Your task to perform on an android device: install app "PlayWell" Image 0: 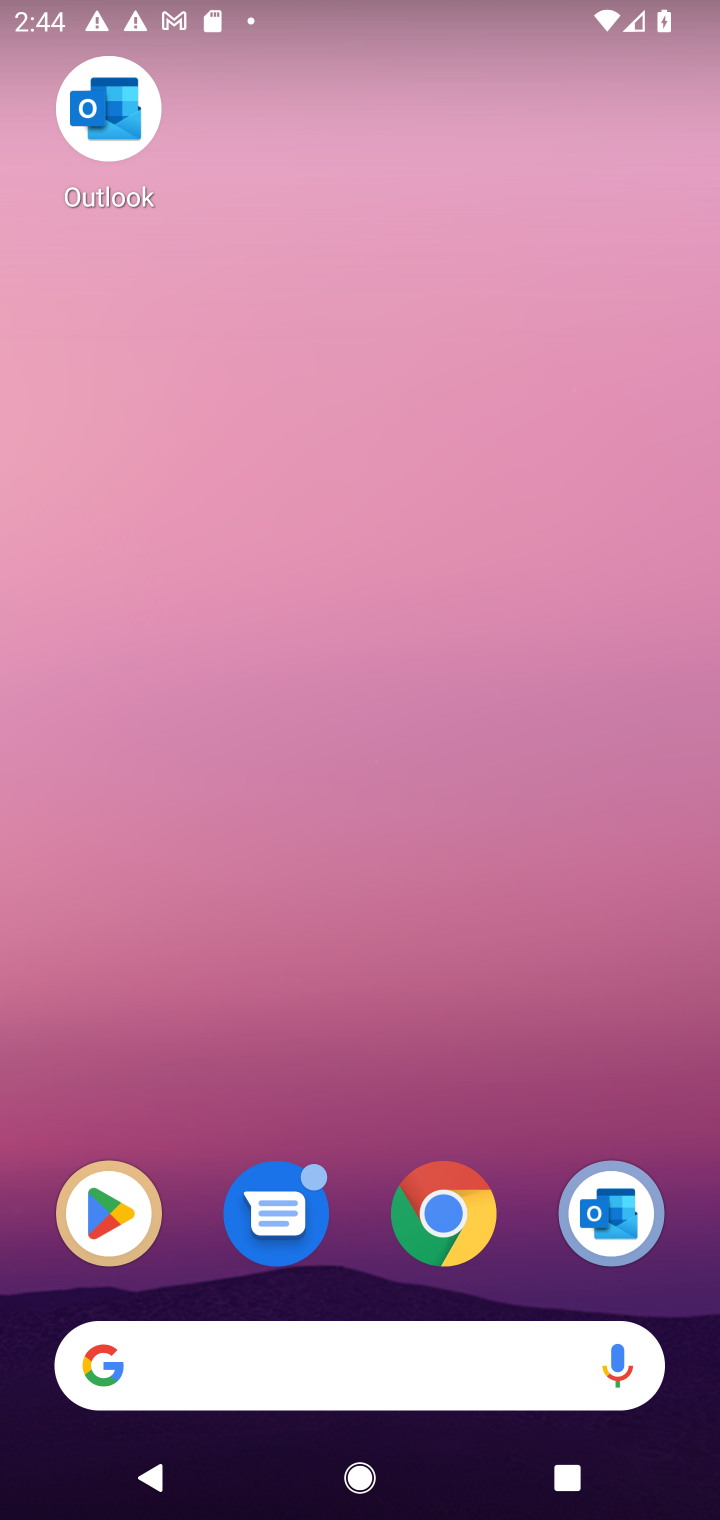
Step 0: drag from (574, 1103) to (567, 259)
Your task to perform on an android device: install app "PlayWell" Image 1: 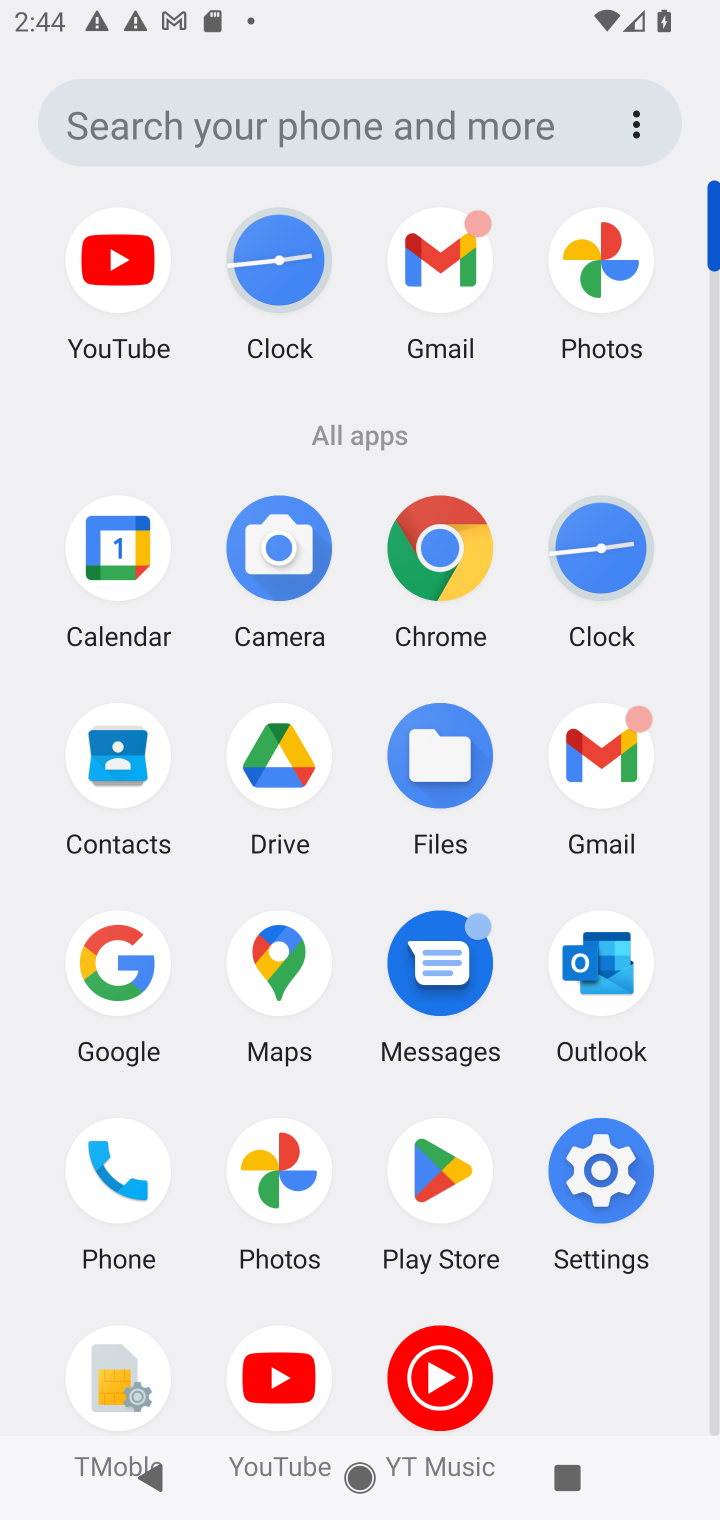
Step 1: click (446, 1178)
Your task to perform on an android device: install app "PlayWell" Image 2: 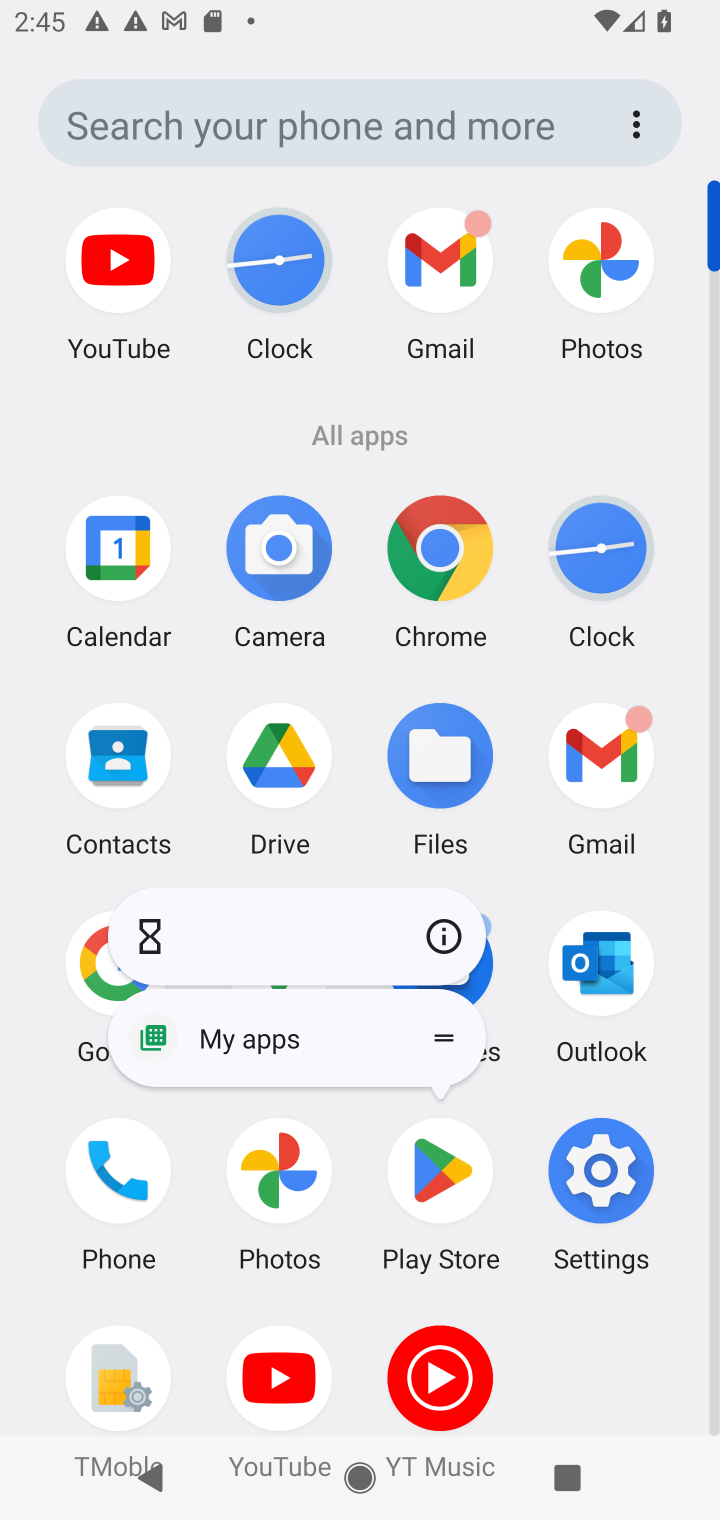
Step 2: click (442, 1163)
Your task to perform on an android device: install app "PlayWell" Image 3: 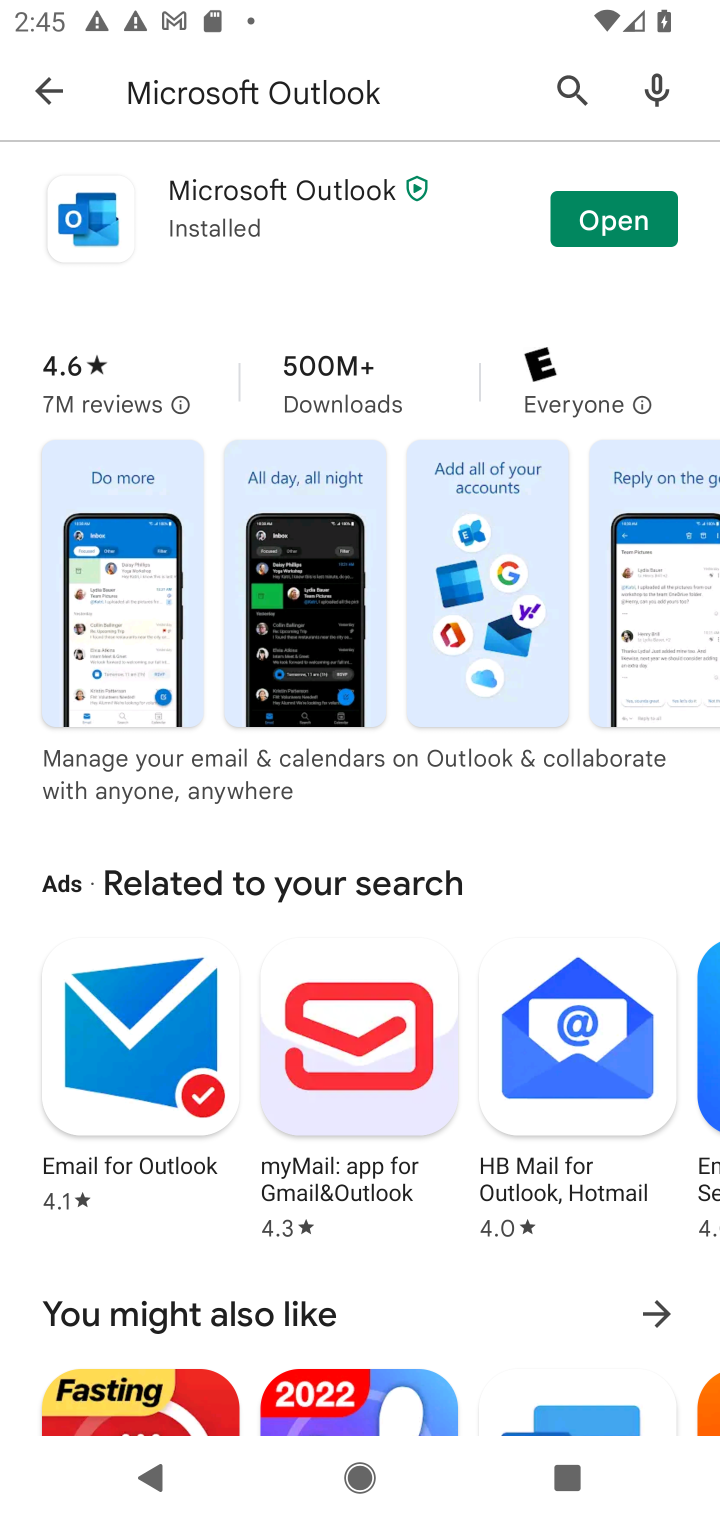
Step 3: click (401, 97)
Your task to perform on an android device: install app "PlayWell" Image 4: 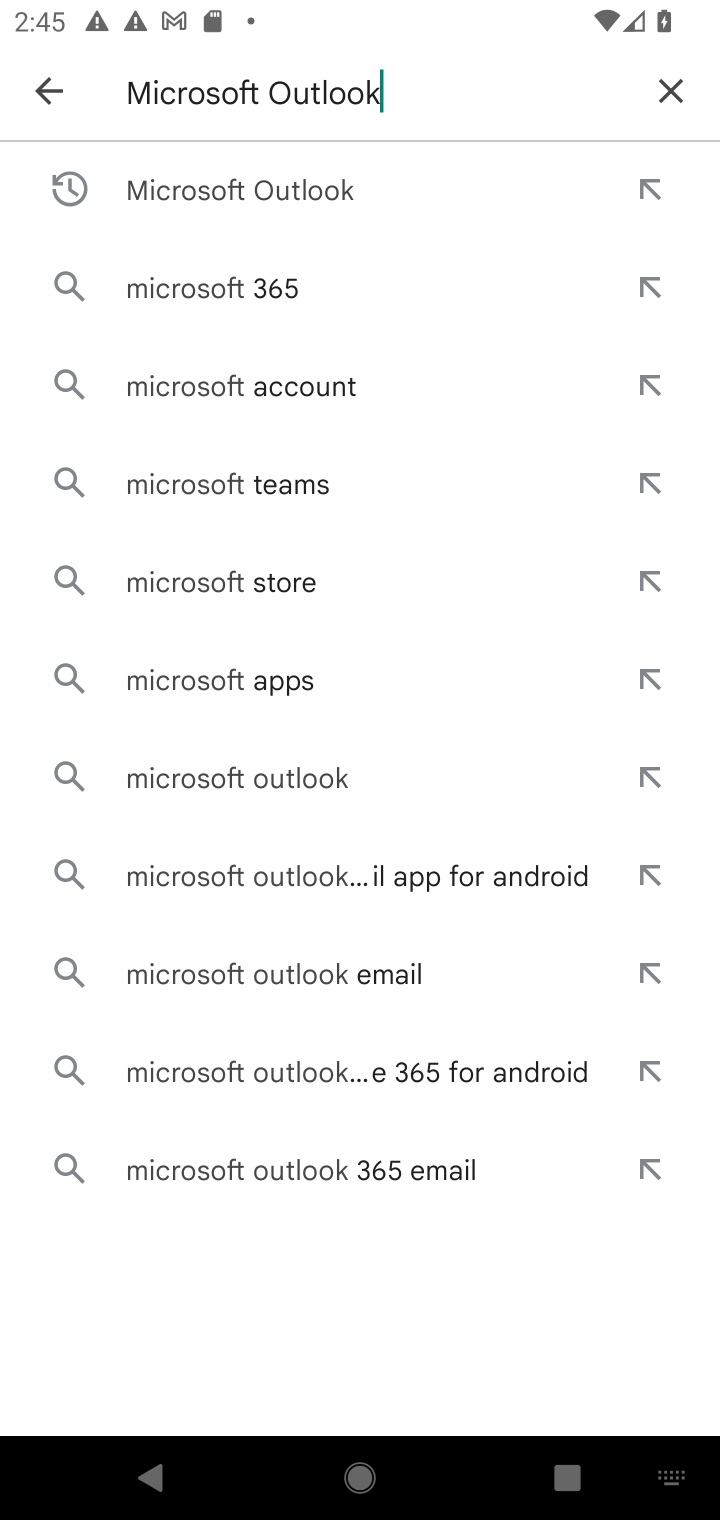
Step 4: click (675, 87)
Your task to perform on an android device: install app "PlayWell" Image 5: 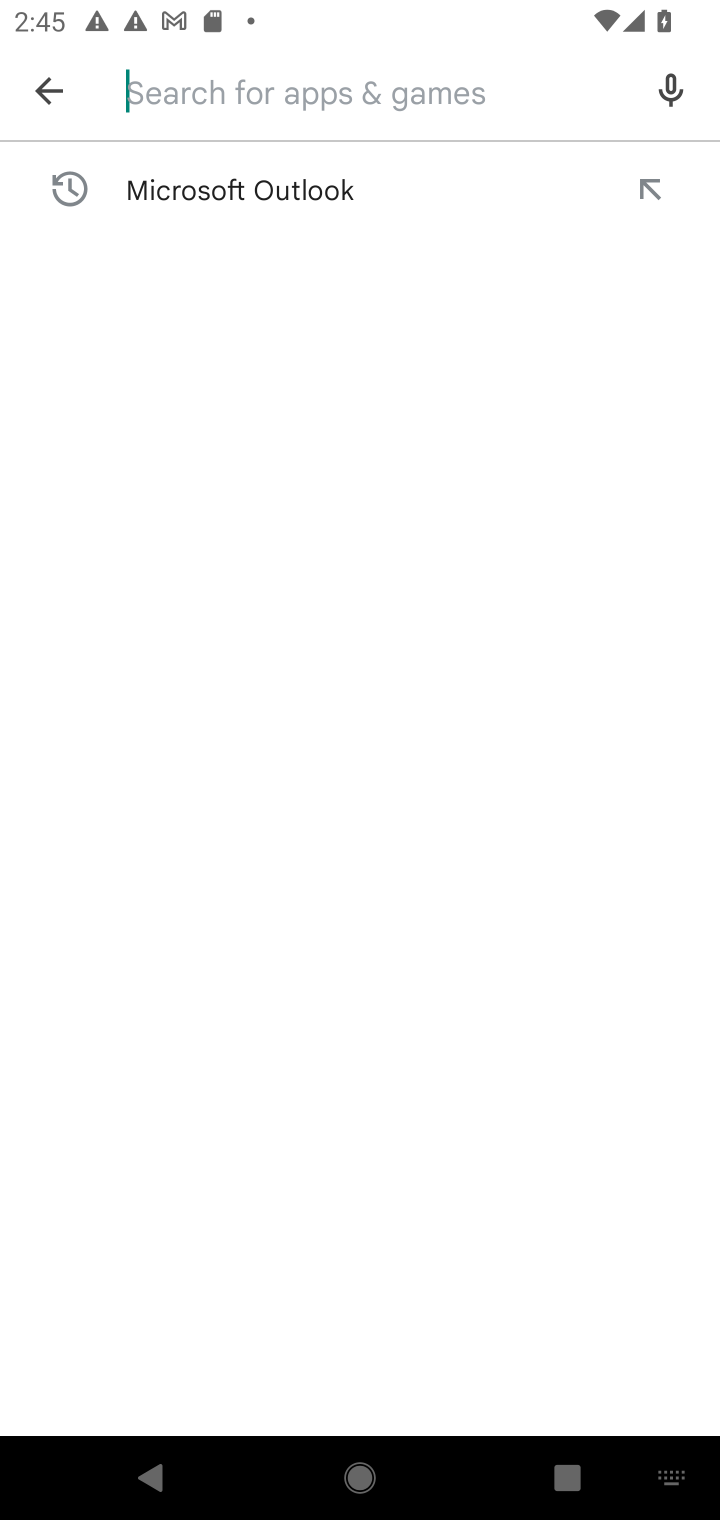
Step 5: type "PlayWell"
Your task to perform on an android device: install app "PlayWell" Image 6: 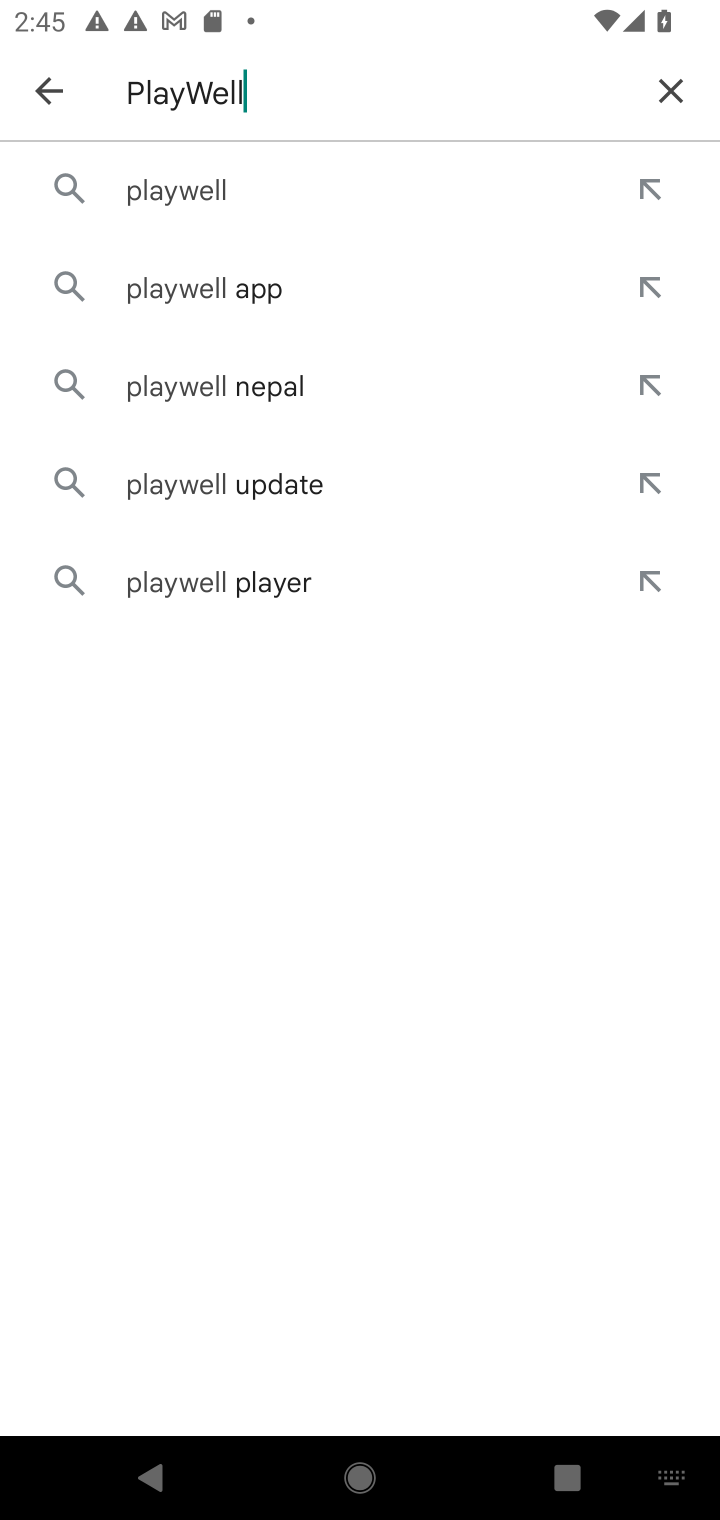
Step 6: press enter
Your task to perform on an android device: install app "PlayWell" Image 7: 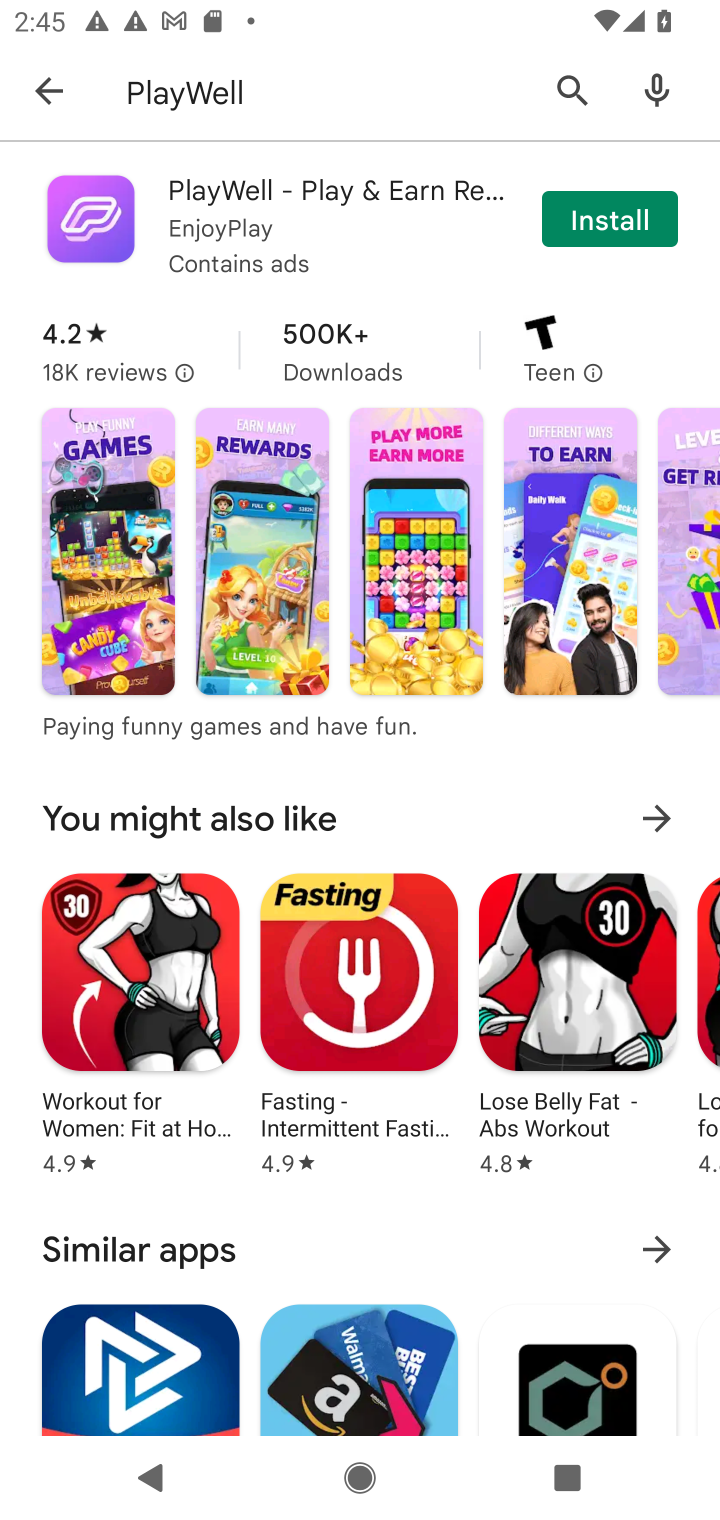
Step 7: click (596, 217)
Your task to perform on an android device: install app "PlayWell" Image 8: 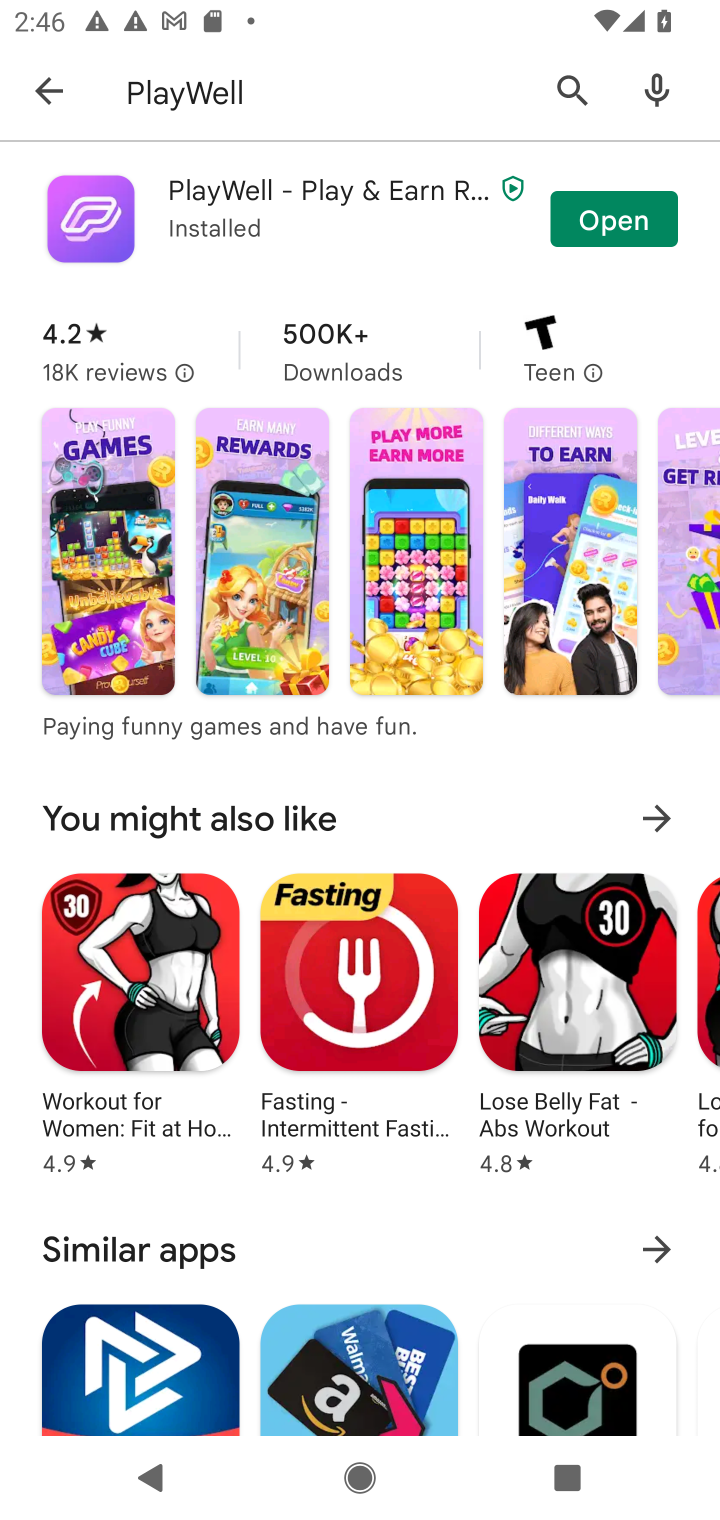
Step 8: task complete